Your task to perform on an android device: turn on location history Image 0: 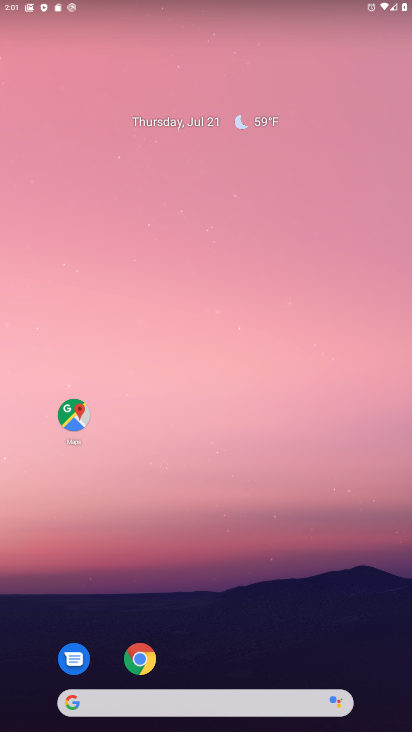
Step 0: drag from (302, 634) to (170, 195)
Your task to perform on an android device: turn on location history Image 1: 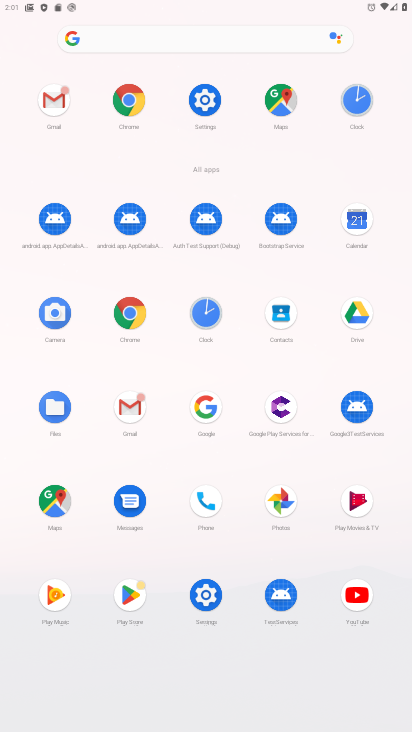
Step 1: click (214, 92)
Your task to perform on an android device: turn on location history Image 2: 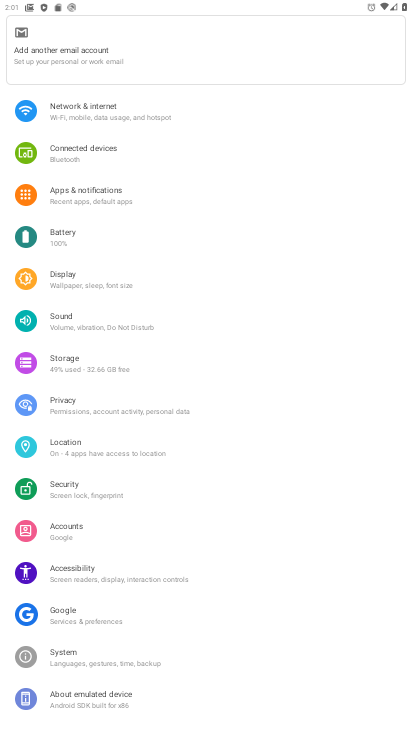
Step 2: click (82, 456)
Your task to perform on an android device: turn on location history Image 3: 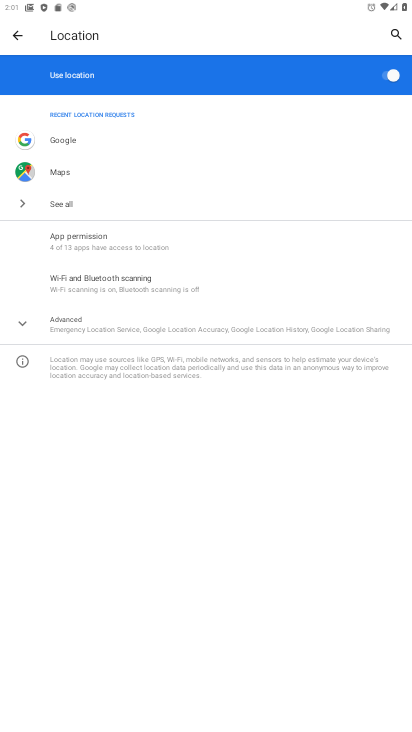
Step 3: click (120, 327)
Your task to perform on an android device: turn on location history Image 4: 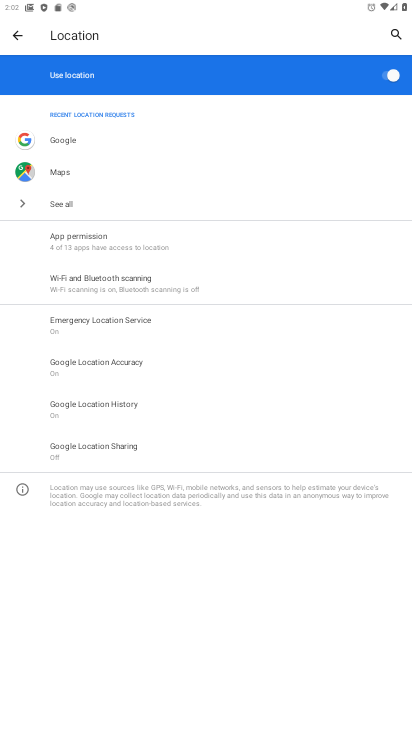
Step 4: click (105, 408)
Your task to perform on an android device: turn on location history Image 5: 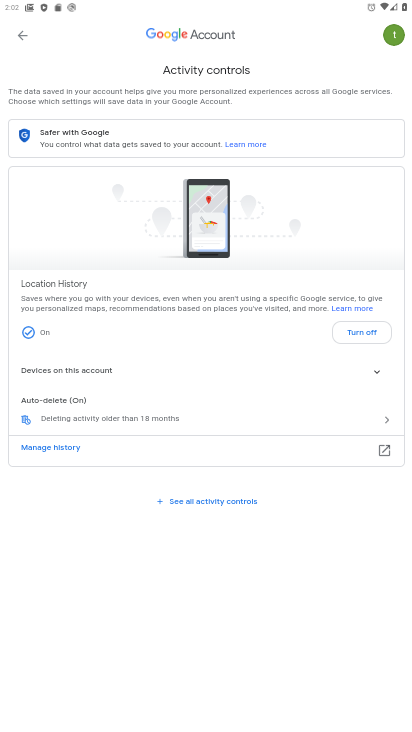
Step 5: task complete